Your task to perform on an android device: turn off location history Image 0: 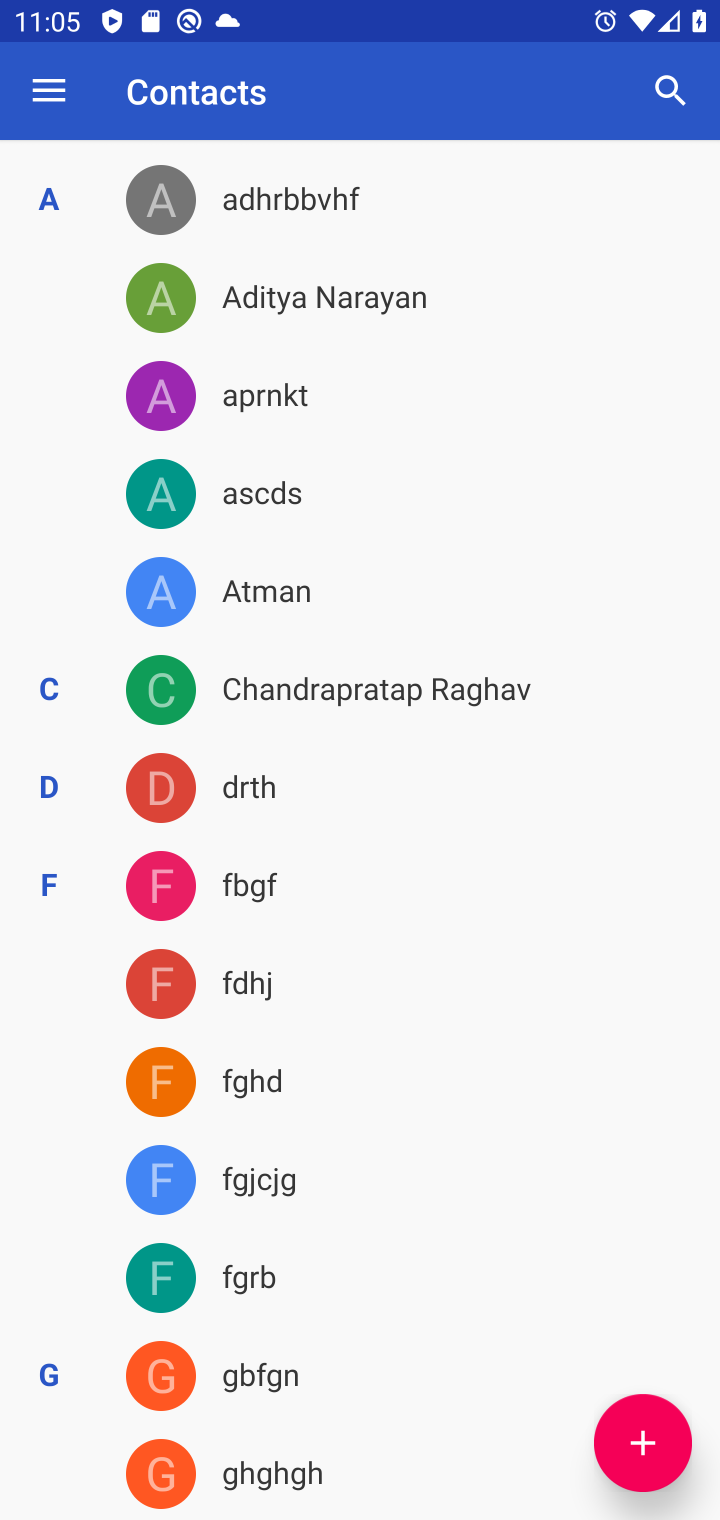
Step 0: press home button
Your task to perform on an android device: turn off location history Image 1: 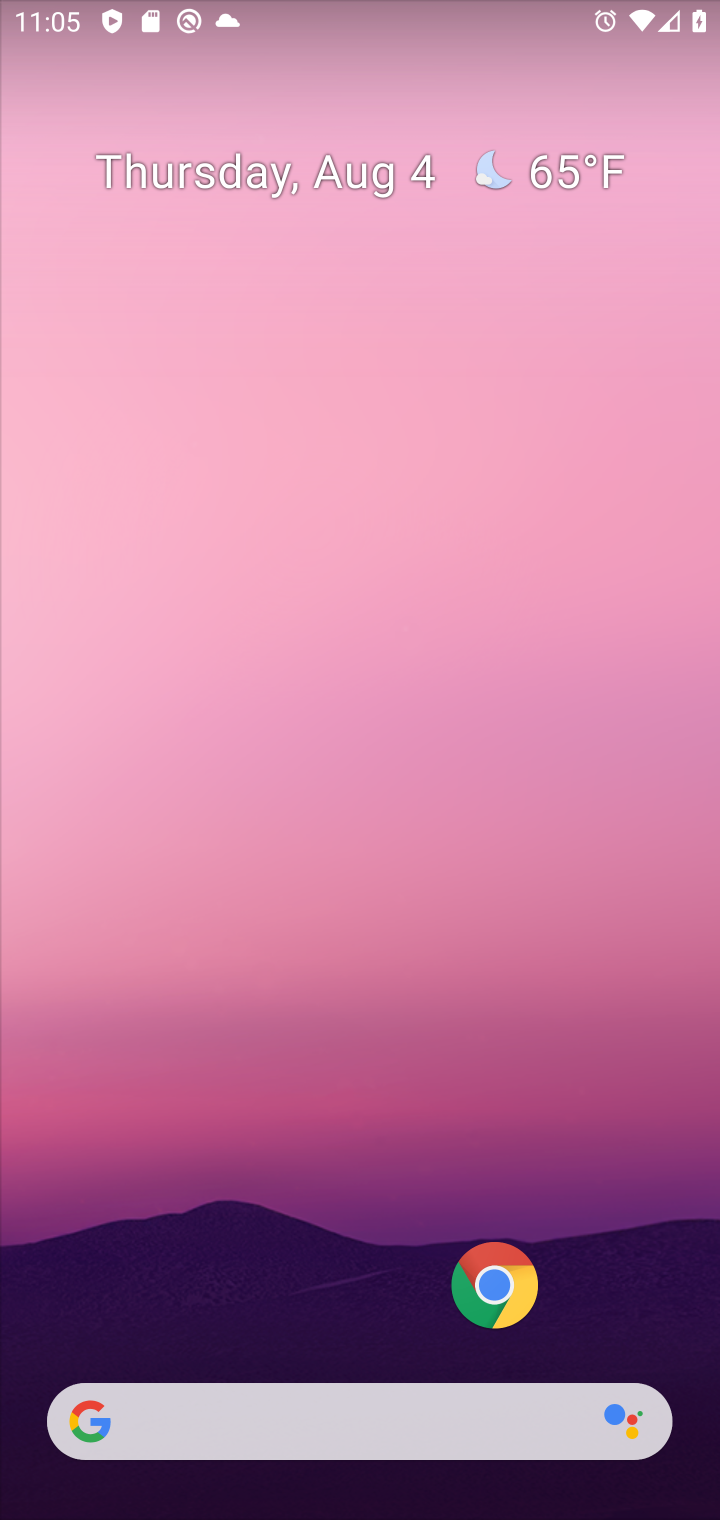
Step 1: drag from (339, 1277) to (304, 663)
Your task to perform on an android device: turn off location history Image 2: 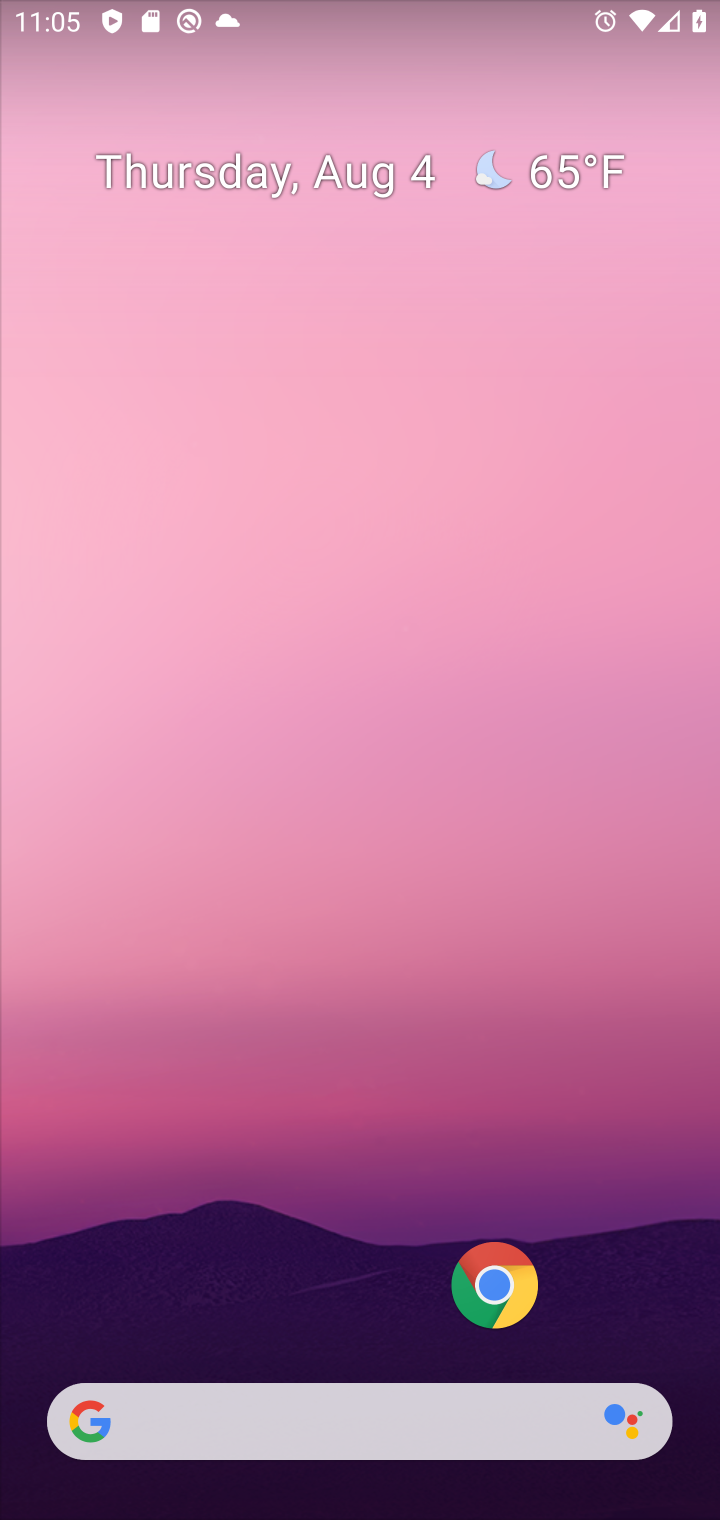
Step 2: drag from (39, 1379) to (274, 375)
Your task to perform on an android device: turn off location history Image 3: 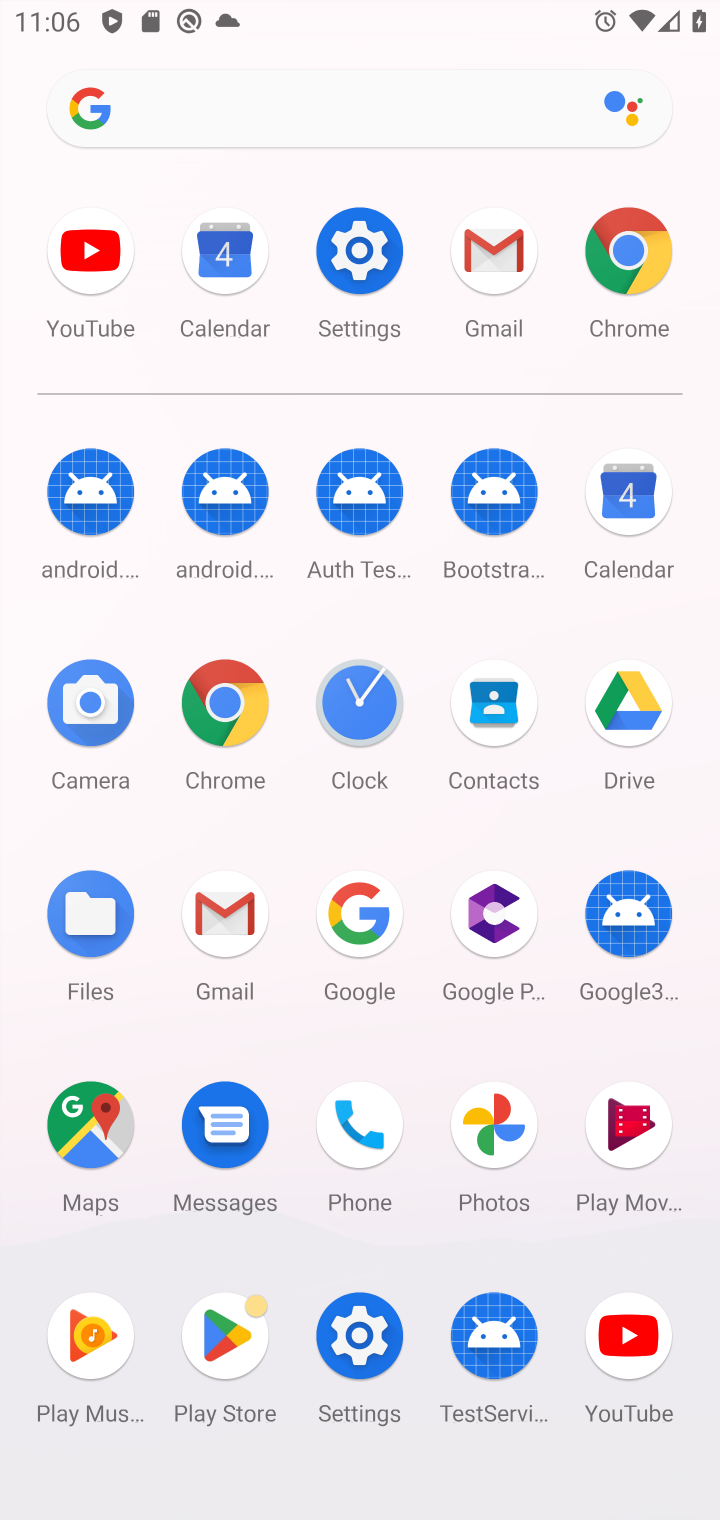
Step 3: click (64, 1090)
Your task to perform on an android device: turn off location history Image 4: 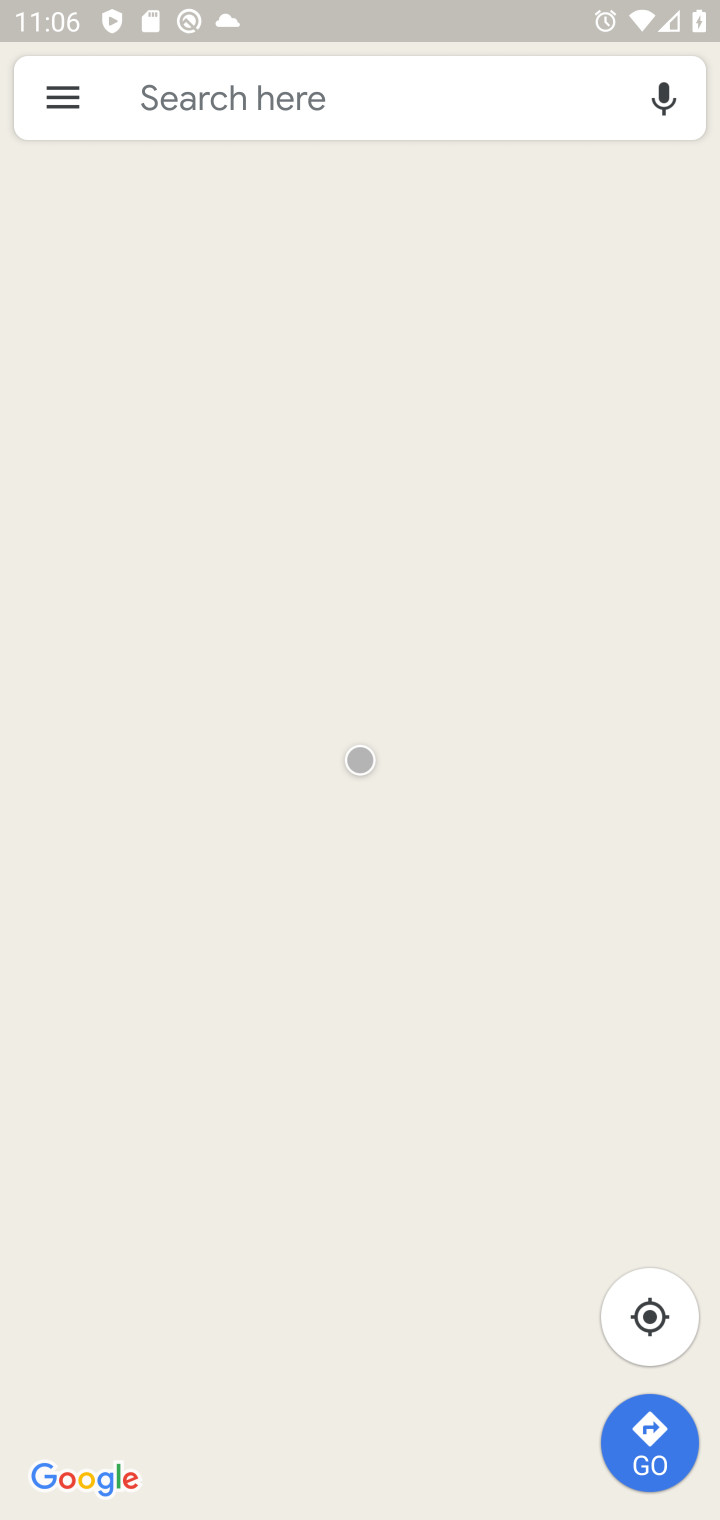
Step 4: click (68, 93)
Your task to perform on an android device: turn off location history Image 5: 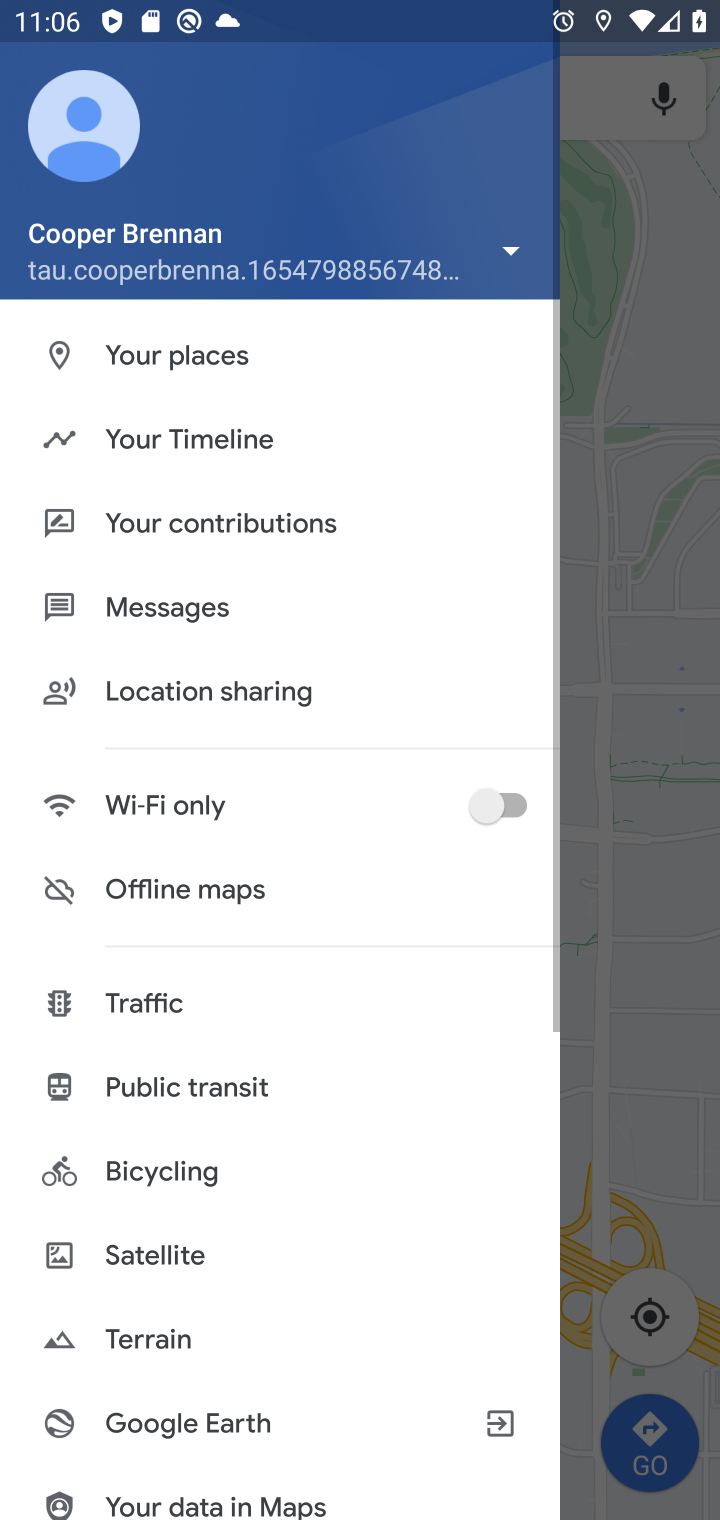
Step 5: click (125, 446)
Your task to perform on an android device: turn off location history Image 6: 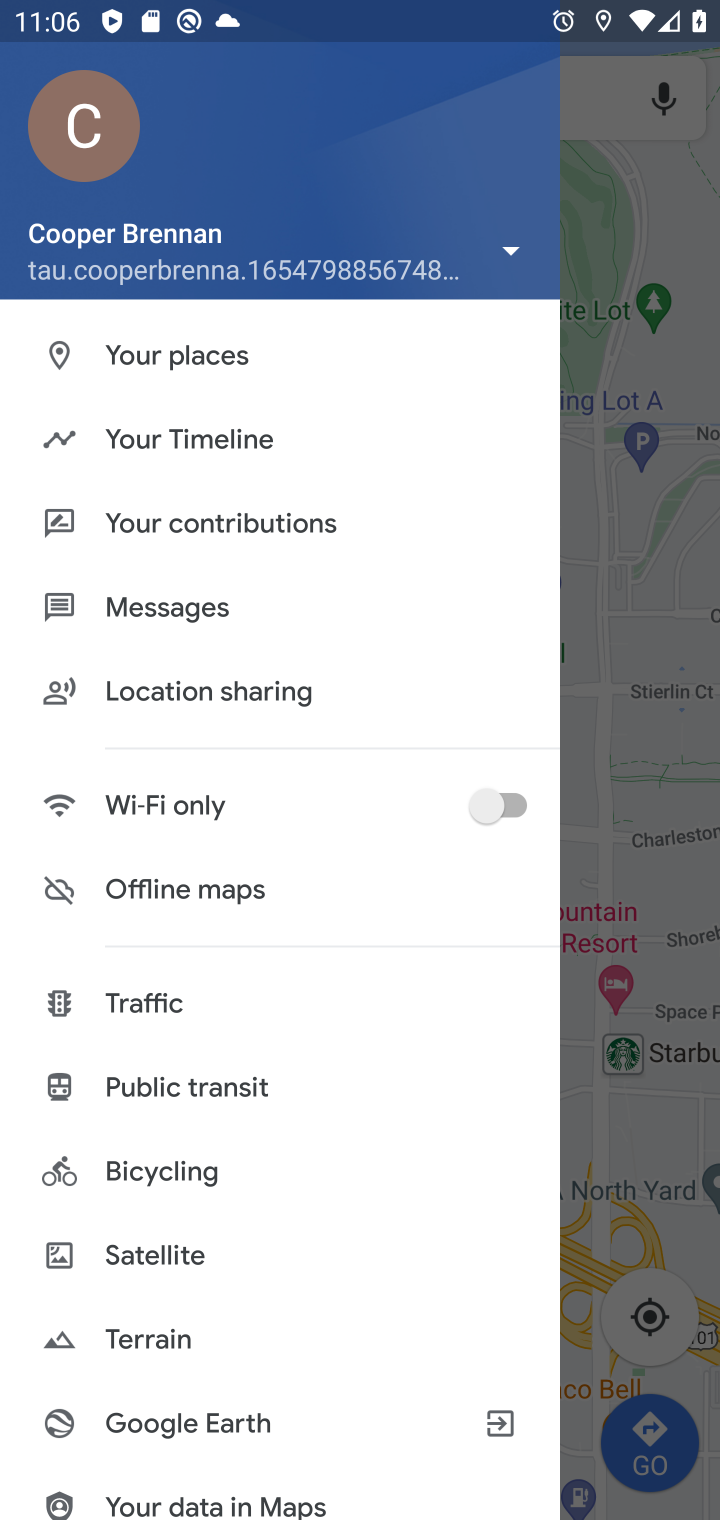
Step 6: click (152, 462)
Your task to perform on an android device: turn off location history Image 7: 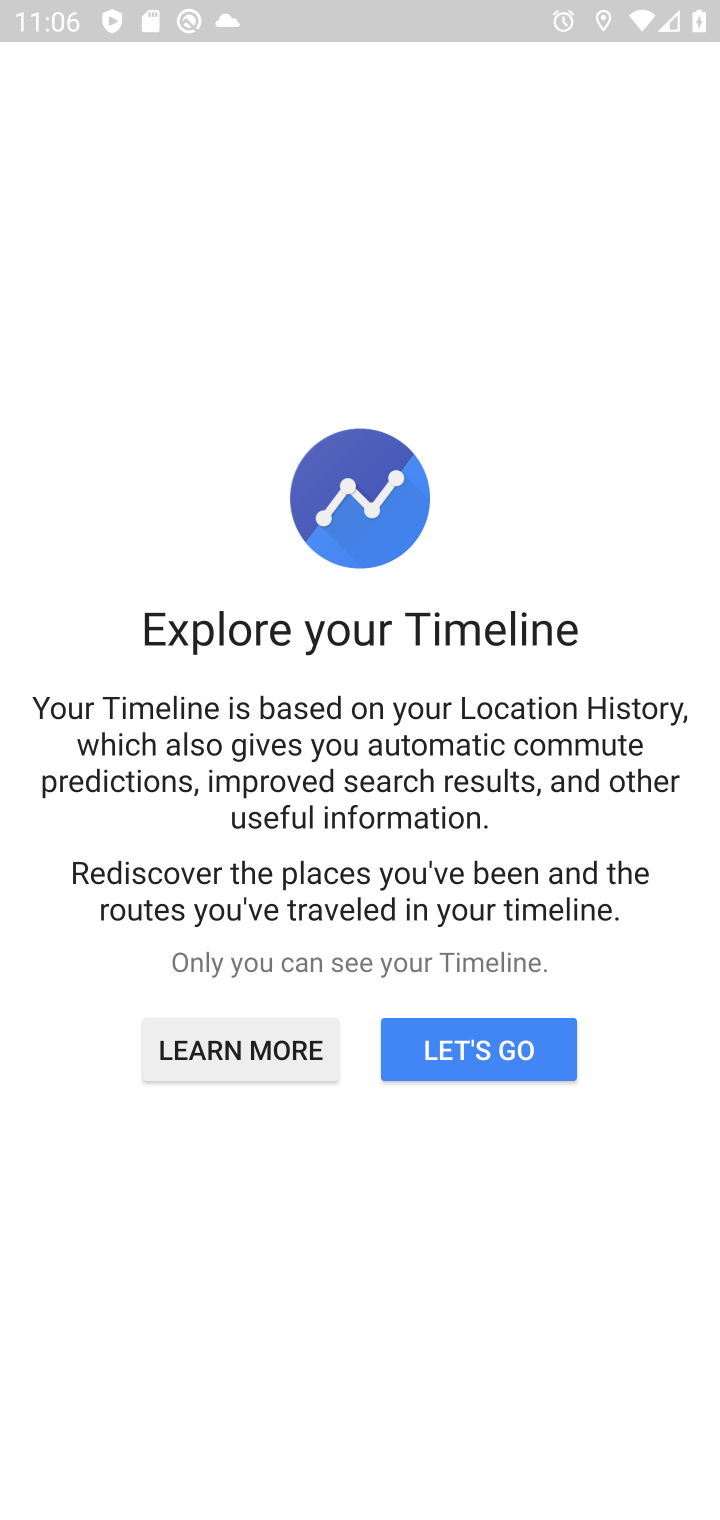
Step 7: click (461, 1046)
Your task to perform on an android device: turn off location history Image 8: 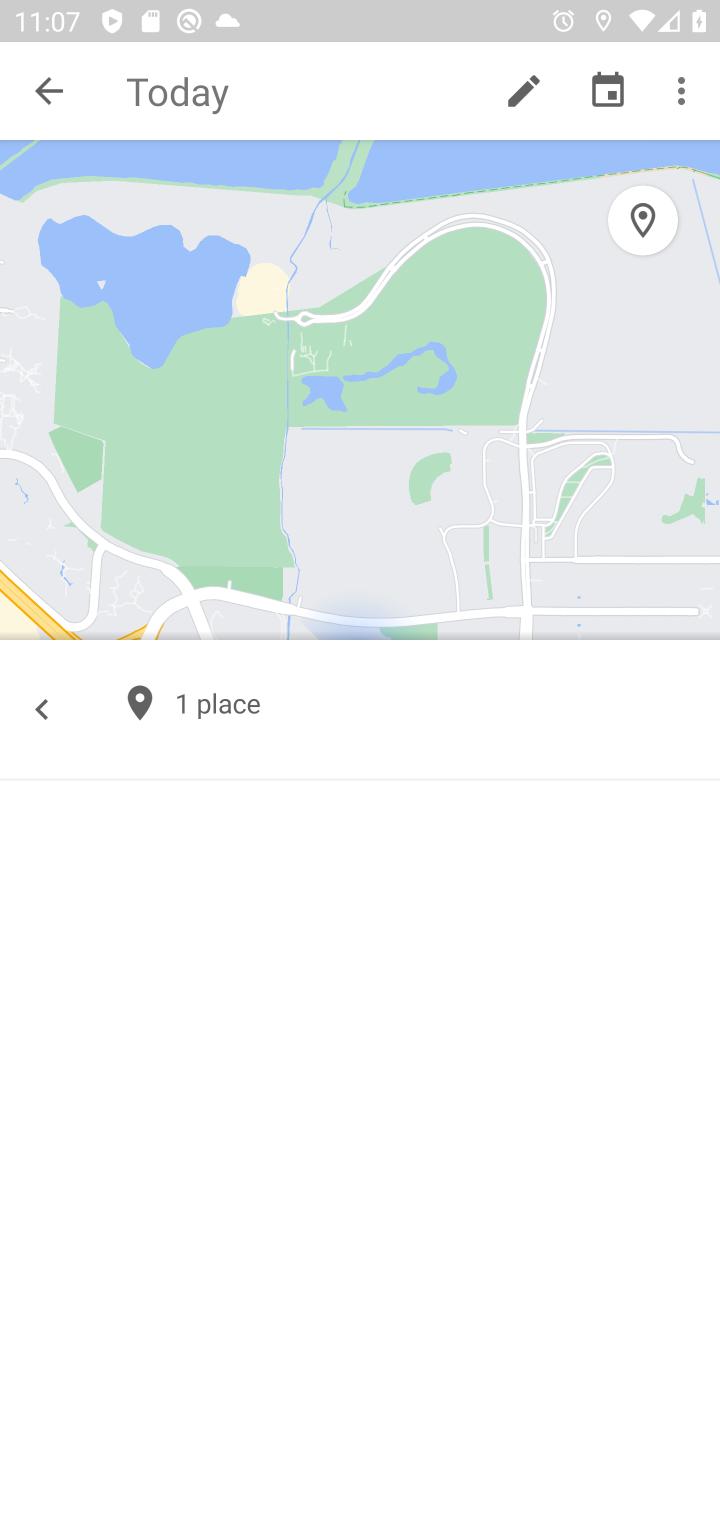
Step 8: click (673, 105)
Your task to perform on an android device: turn off location history Image 9: 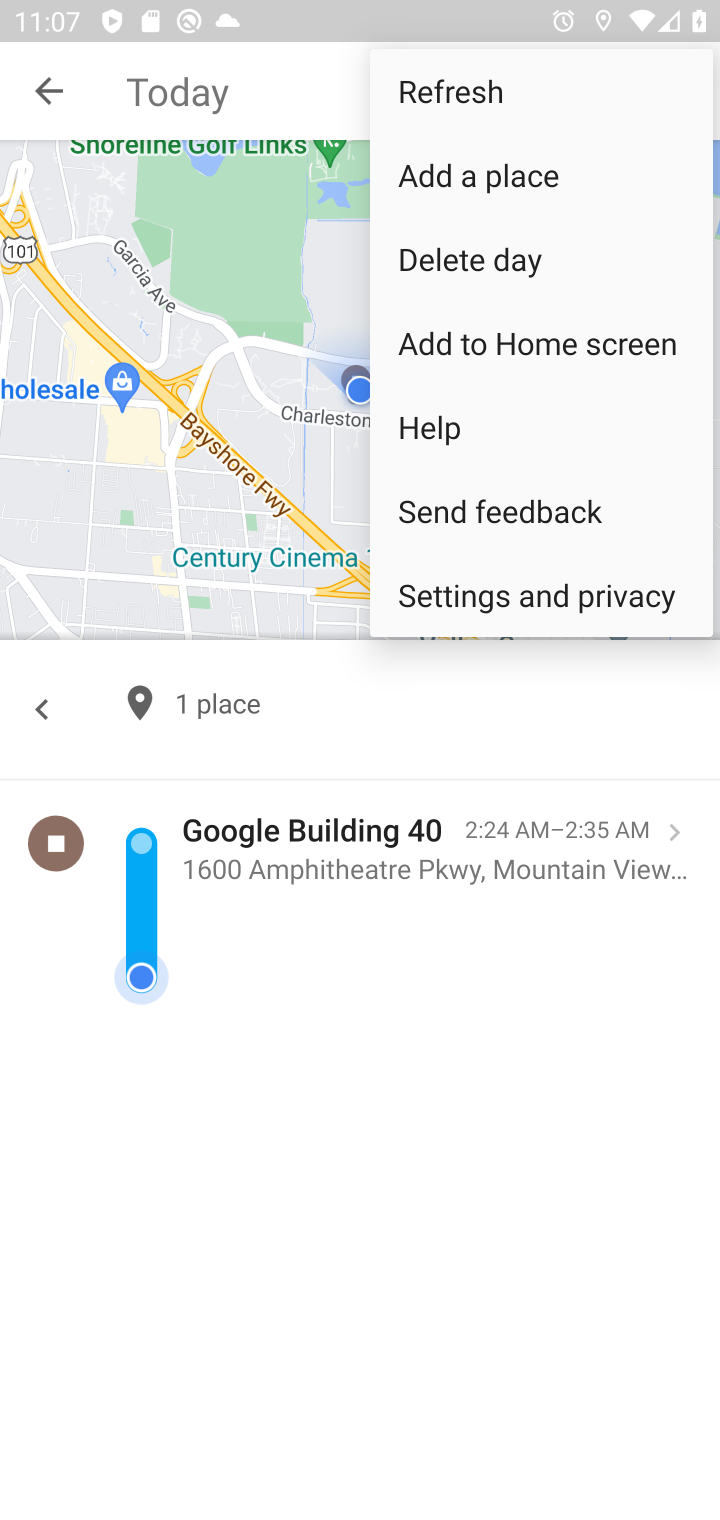
Step 9: click (422, 613)
Your task to perform on an android device: turn off location history Image 10: 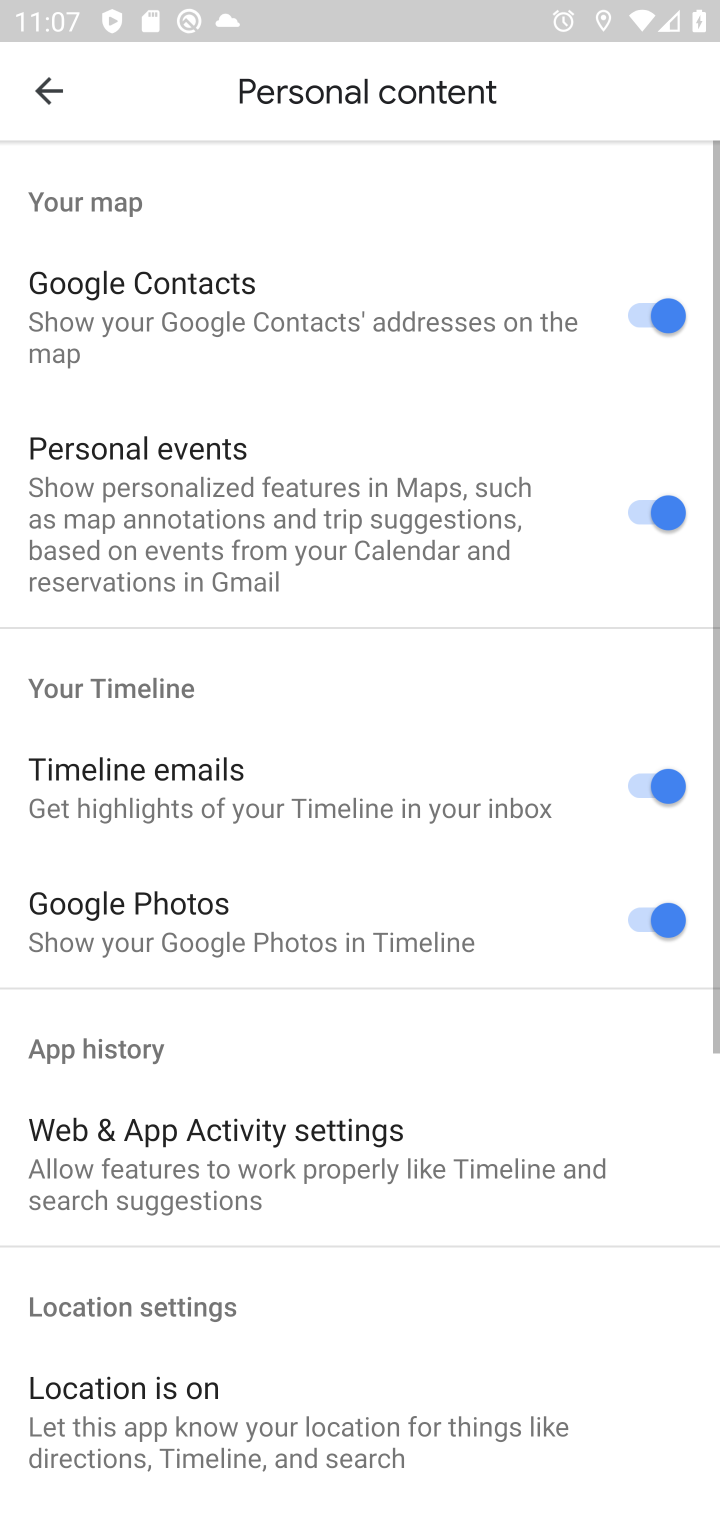
Step 10: drag from (342, 1312) to (262, 357)
Your task to perform on an android device: turn off location history Image 11: 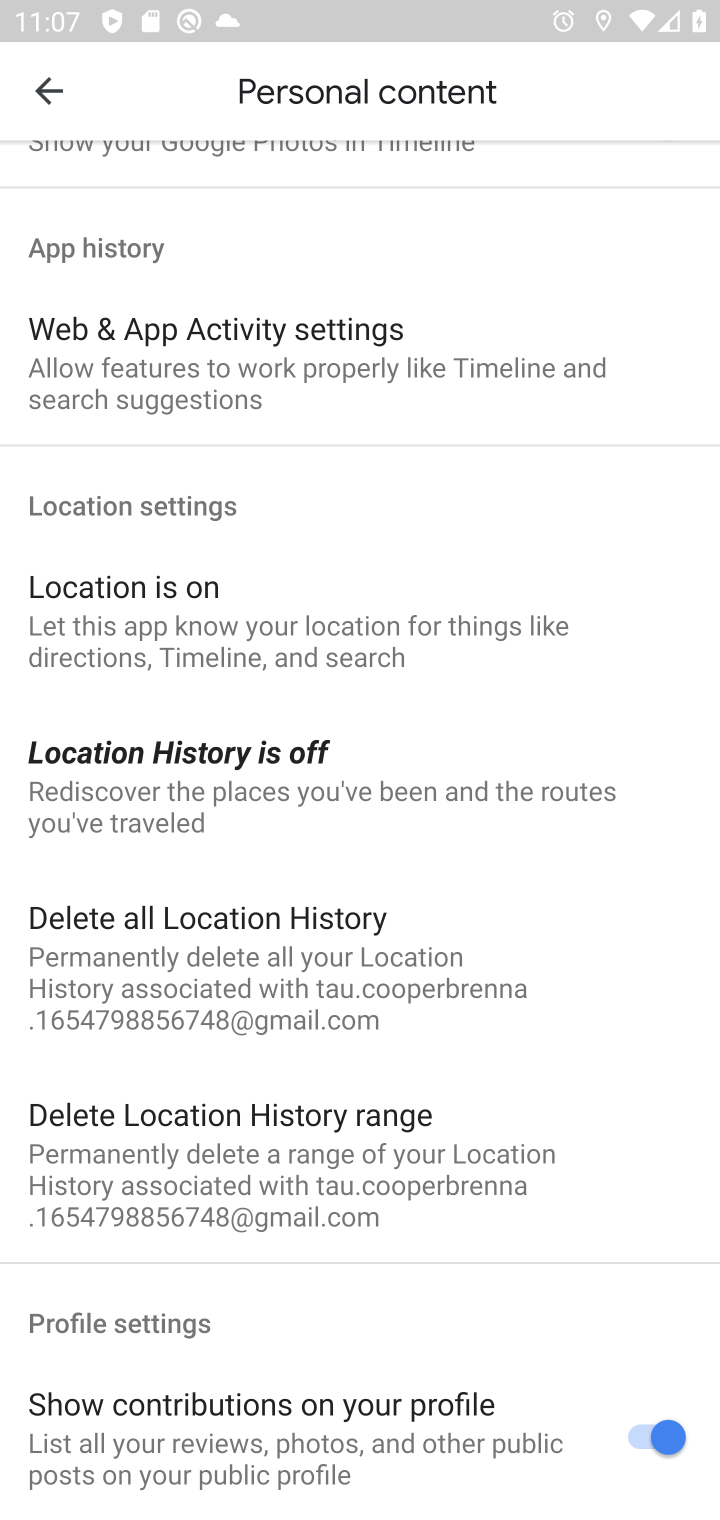
Step 11: click (168, 824)
Your task to perform on an android device: turn off location history Image 12: 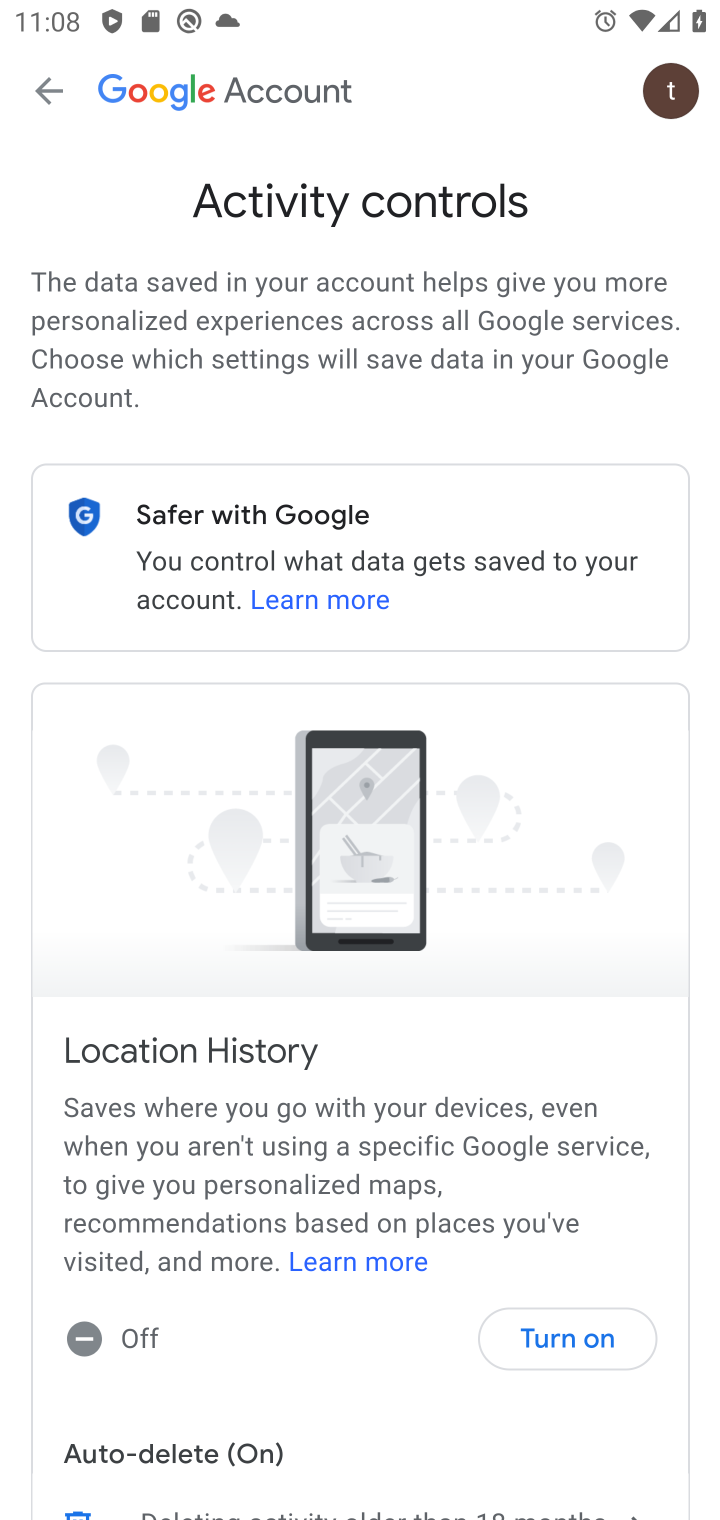
Step 12: task complete